Your task to perform on an android device: read, delete, or share a saved page in the chrome app Image 0: 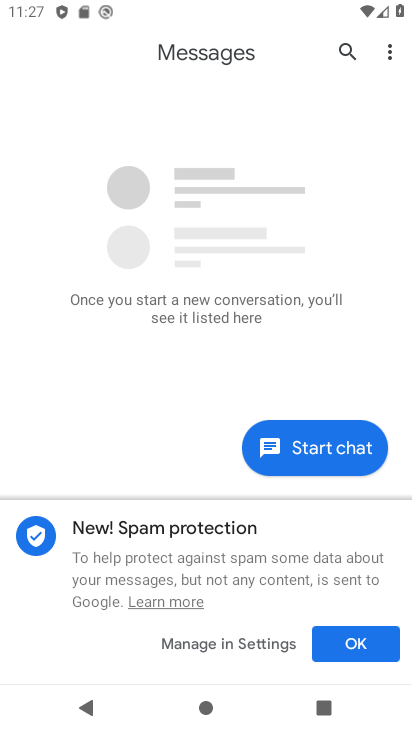
Step 0: press home button
Your task to perform on an android device: read, delete, or share a saved page in the chrome app Image 1: 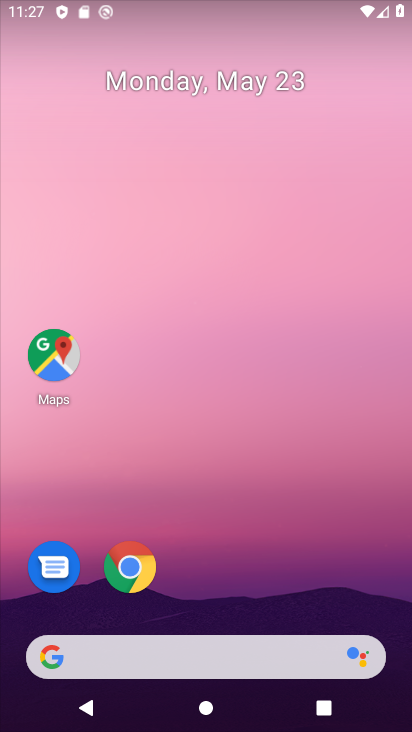
Step 1: drag from (319, 591) to (316, 201)
Your task to perform on an android device: read, delete, or share a saved page in the chrome app Image 2: 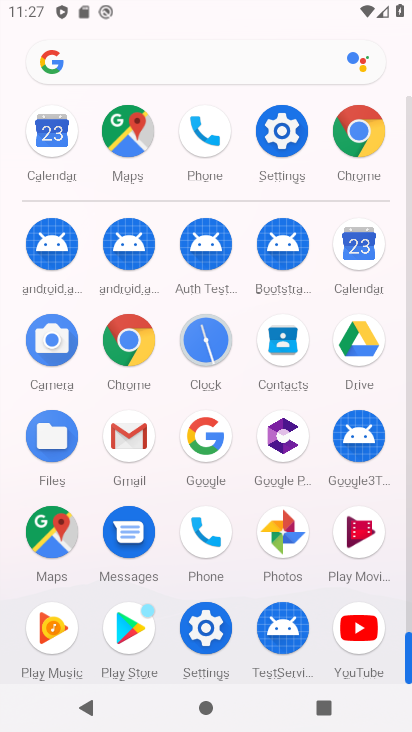
Step 2: click (345, 140)
Your task to perform on an android device: read, delete, or share a saved page in the chrome app Image 3: 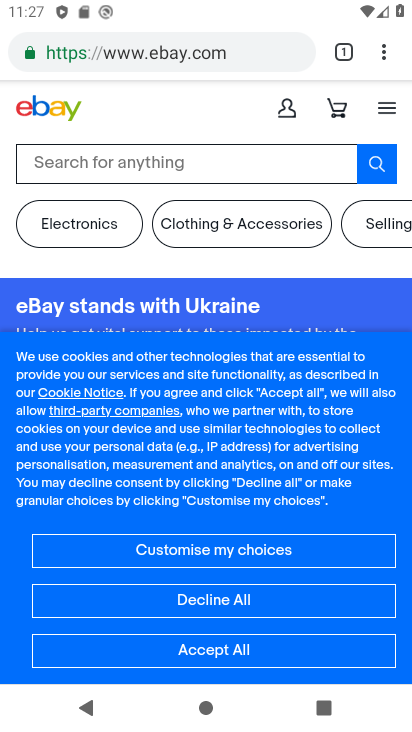
Step 3: task complete